Your task to perform on an android device: Go to calendar. Show me events next week Image 0: 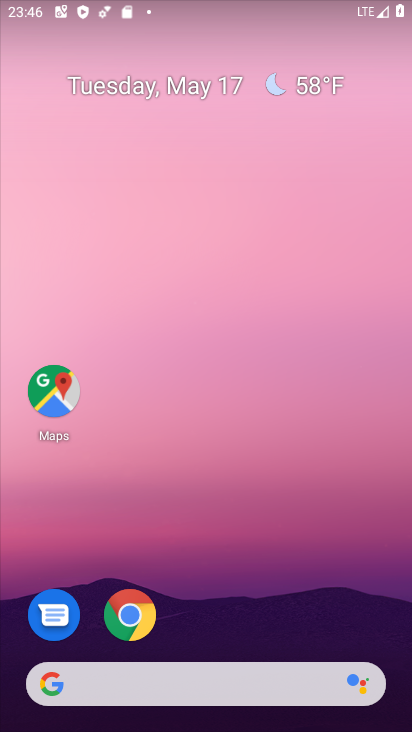
Step 0: drag from (175, 552) to (165, 180)
Your task to perform on an android device: Go to calendar. Show me events next week Image 1: 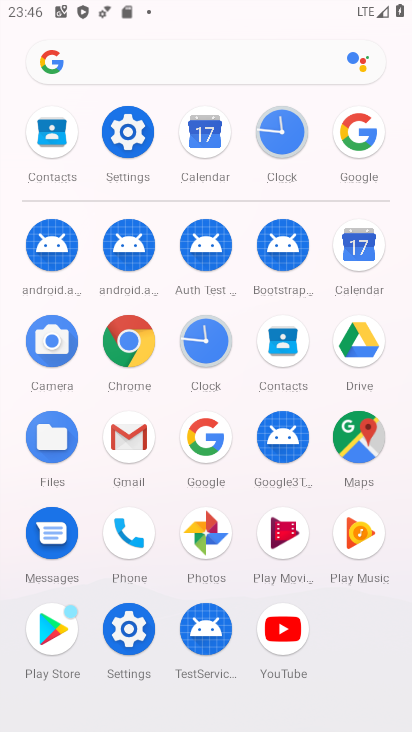
Step 1: click (365, 251)
Your task to perform on an android device: Go to calendar. Show me events next week Image 2: 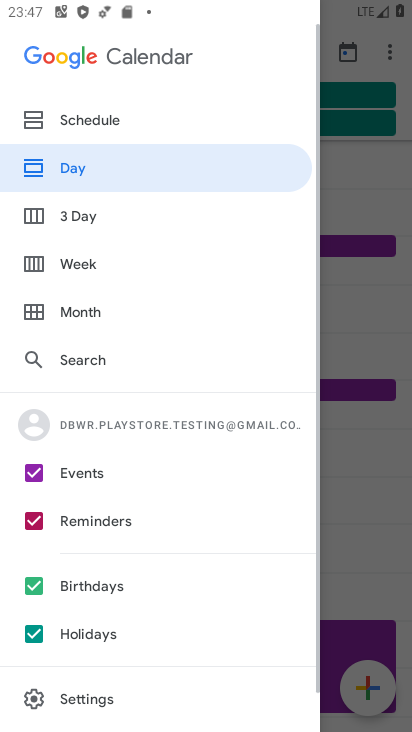
Step 2: click (339, 314)
Your task to perform on an android device: Go to calendar. Show me events next week Image 3: 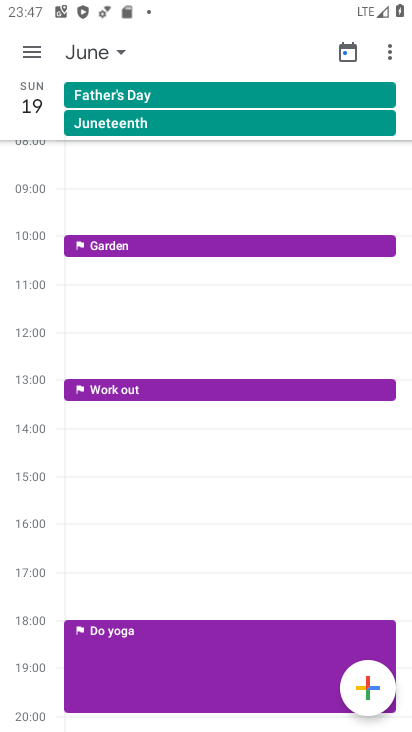
Step 3: drag from (157, 201) to (173, 499)
Your task to perform on an android device: Go to calendar. Show me events next week Image 4: 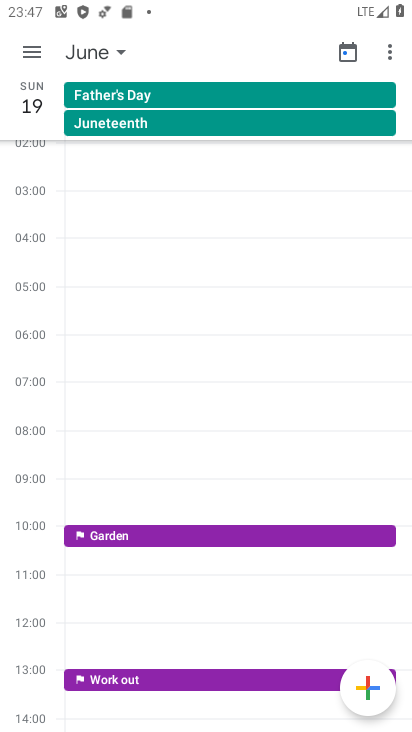
Step 4: click (110, 50)
Your task to perform on an android device: Go to calendar. Show me events next week Image 5: 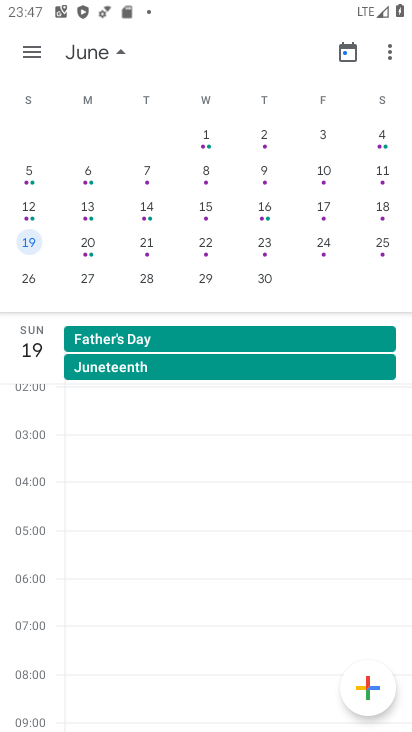
Step 5: click (31, 237)
Your task to perform on an android device: Go to calendar. Show me events next week Image 6: 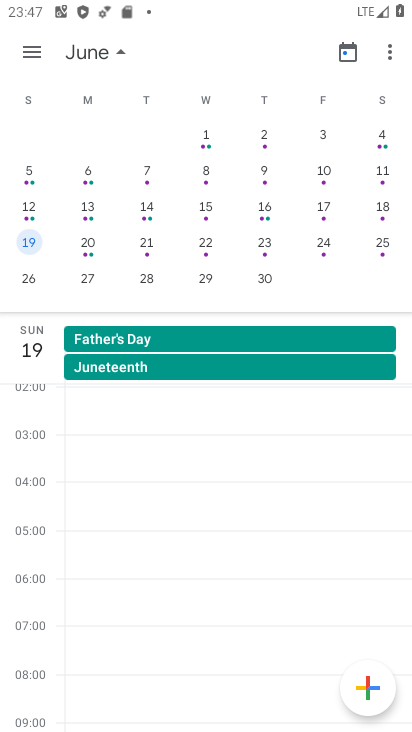
Step 6: click (78, 239)
Your task to perform on an android device: Go to calendar. Show me events next week Image 7: 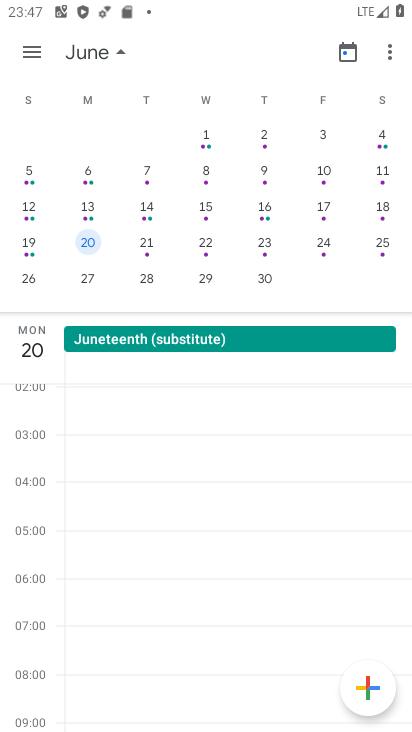
Step 7: click (35, 240)
Your task to perform on an android device: Go to calendar. Show me events next week Image 8: 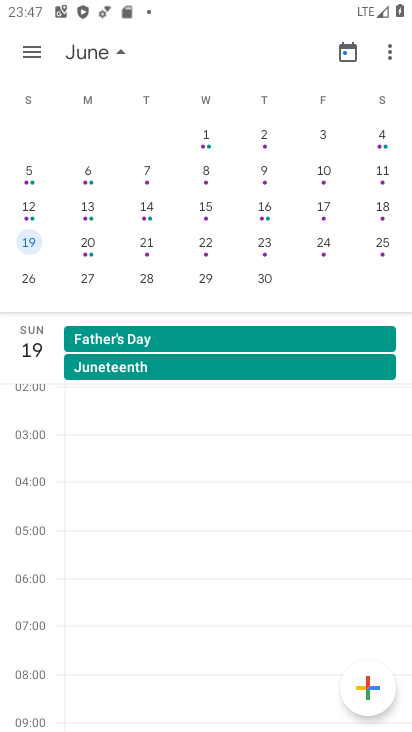
Step 8: task complete